Your task to perform on an android device: turn smart compose on in the gmail app Image 0: 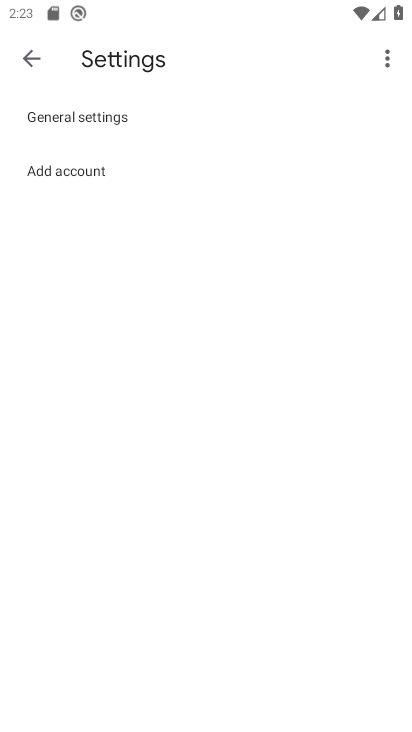
Step 0: press back button
Your task to perform on an android device: turn smart compose on in the gmail app Image 1: 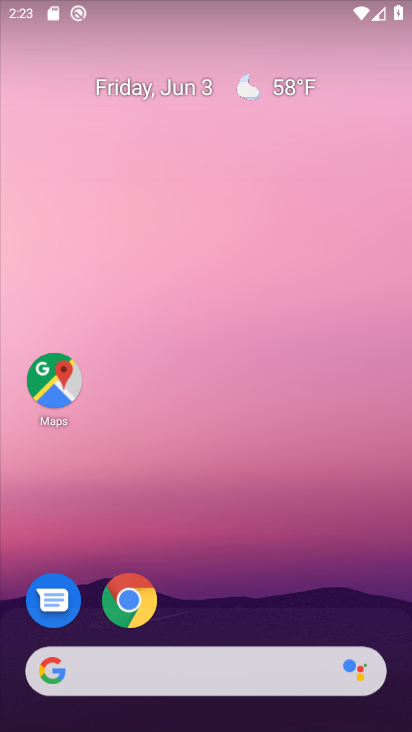
Step 1: drag from (247, 567) to (251, 15)
Your task to perform on an android device: turn smart compose on in the gmail app Image 2: 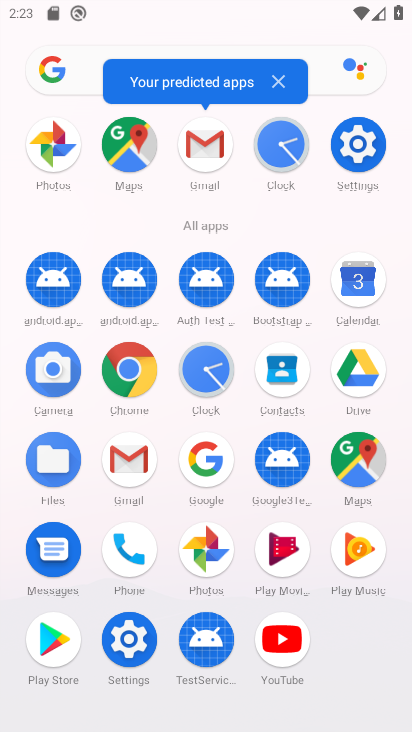
Step 2: drag from (12, 385) to (10, 187)
Your task to perform on an android device: turn smart compose on in the gmail app Image 3: 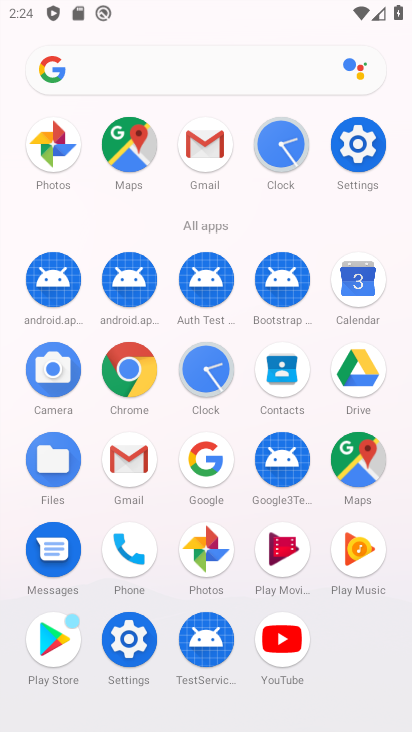
Step 3: click (128, 455)
Your task to perform on an android device: turn smart compose on in the gmail app Image 4: 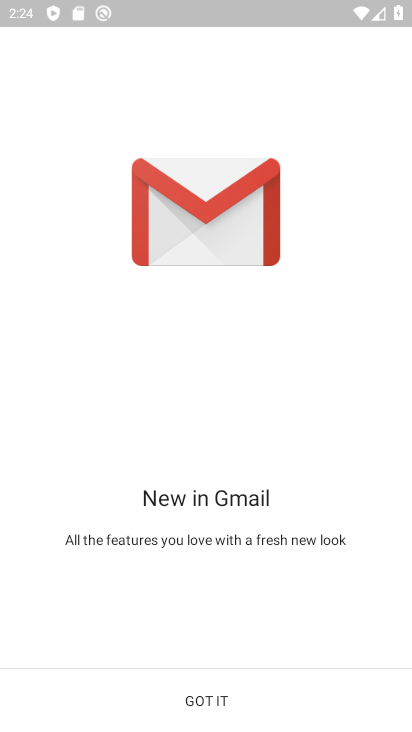
Step 4: click (210, 702)
Your task to perform on an android device: turn smart compose on in the gmail app Image 5: 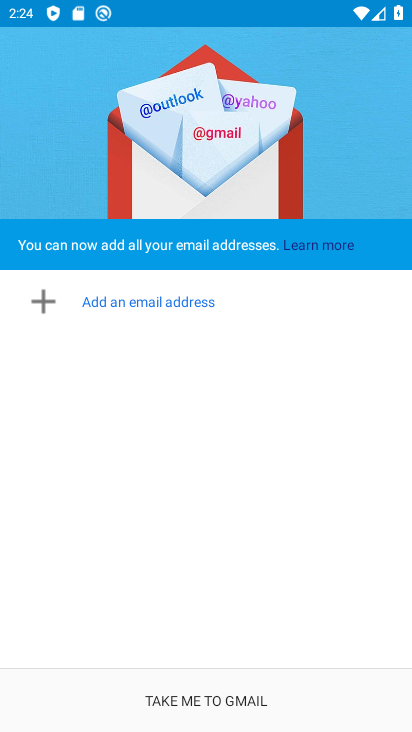
Step 5: click (224, 690)
Your task to perform on an android device: turn smart compose on in the gmail app Image 6: 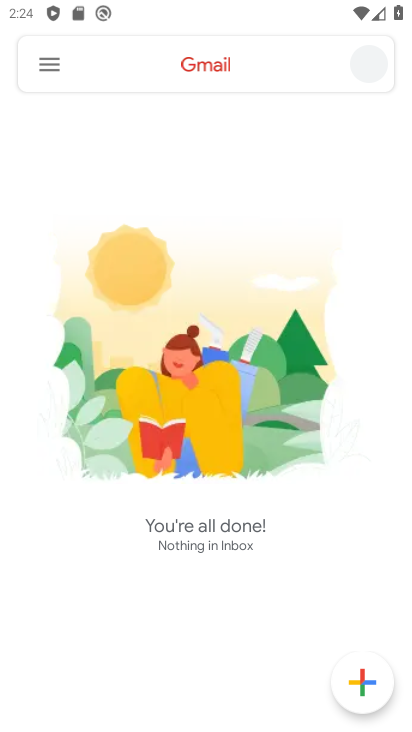
Step 6: click (44, 53)
Your task to perform on an android device: turn smart compose on in the gmail app Image 7: 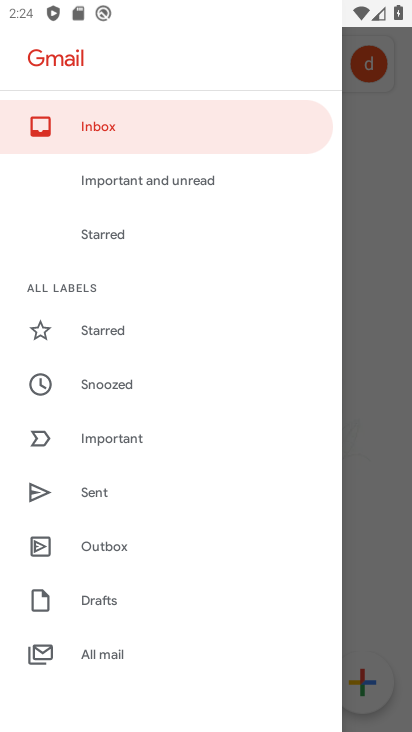
Step 7: drag from (160, 589) to (178, 161)
Your task to perform on an android device: turn smart compose on in the gmail app Image 8: 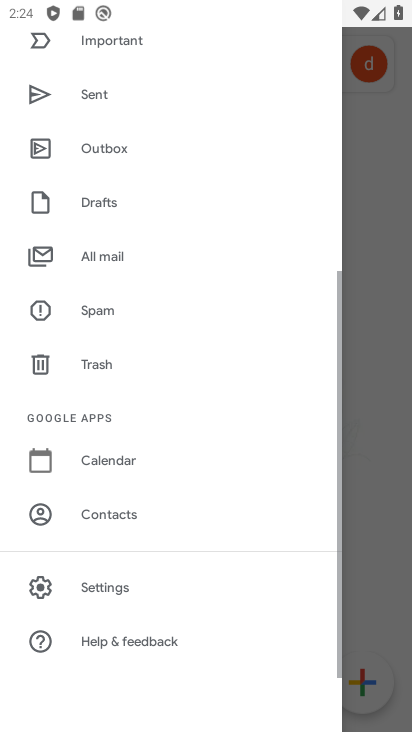
Step 8: drag from (170, 590) to (135, 246)
Your task to perform on an android device: turn smart compose on in the gmail app Image 9: 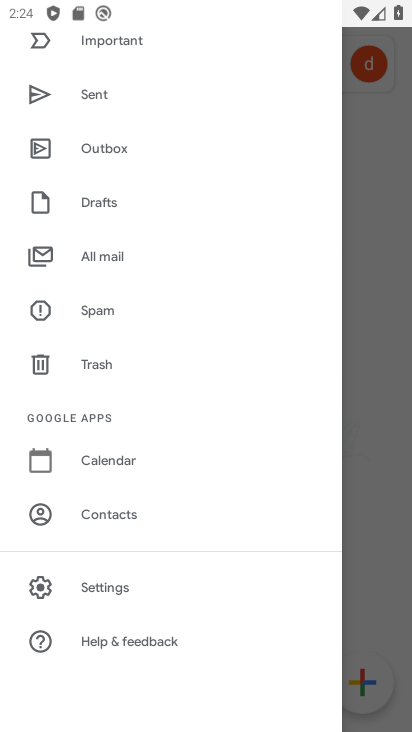
Step 9: click (123, 583)
Your task to perform on an android device: turn smart compose on in the gmail app Image 10: 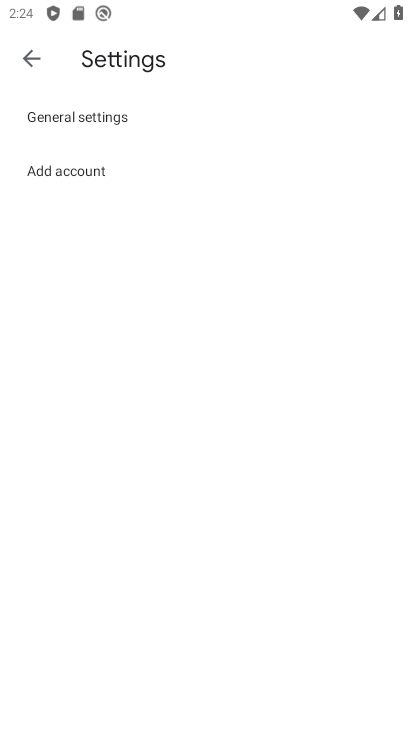
Step 10: click (100, 117)
Your task to perform on an android device: turn smart compose on in the gmail app Image 11: 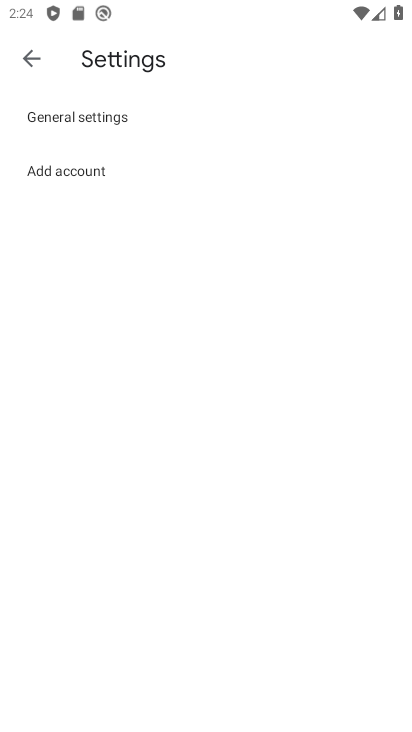
Step 11: click (100, 117)
Your task to perform on an android device: turn smart compose on in the gmail app Image 12: 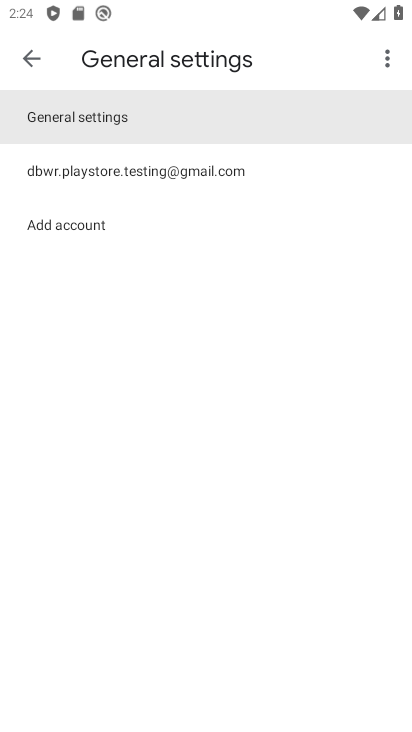
Step 12: click (33, 59)
Your task to perform on an android device: turn smart compose on in the gmail app Image 13: 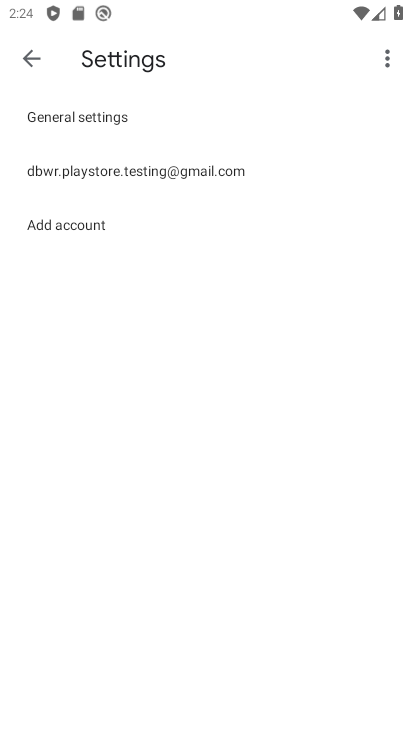
Step 13: click (90, 168)
Your task to perform on an android device: turn smart compose on in the gmail app Image 14: 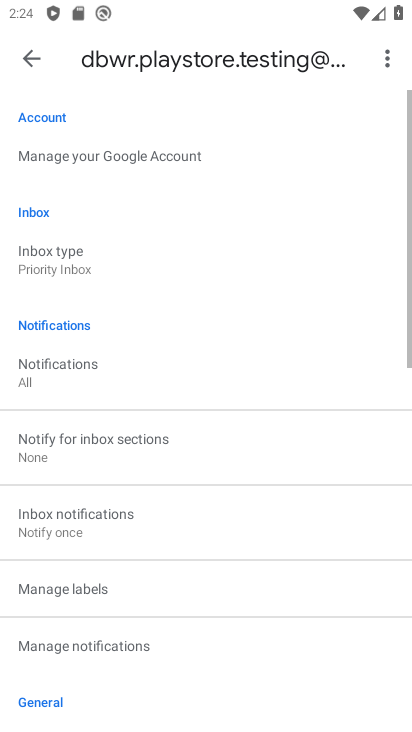
Step 14: task complete